Your task to perform on an android device: empty trash in the gmail app Image 0: 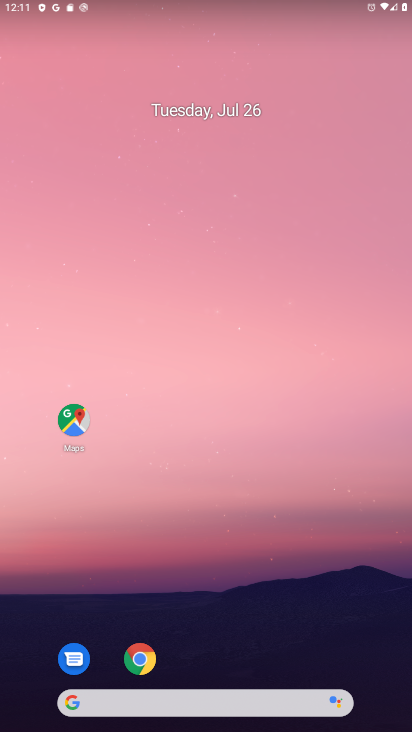
Step 0: drag from (214, 627) to (124, 126)
Your task to perform on an android device: empty trash in the gmail app Image 1: 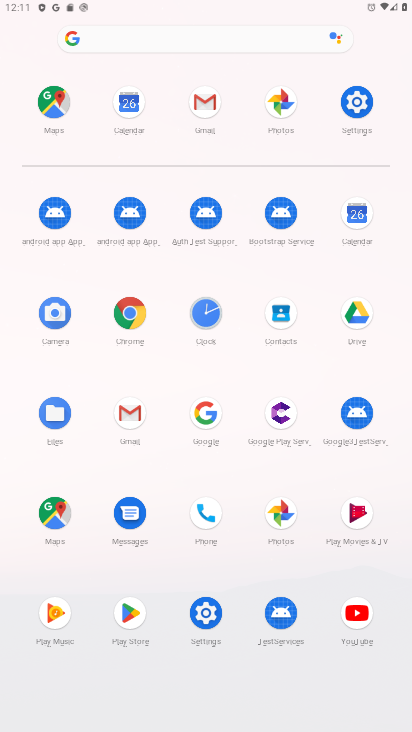
Step 1: click (126, 412)
Your task to perform on an android device: empty trash in the gmail app Image 2: 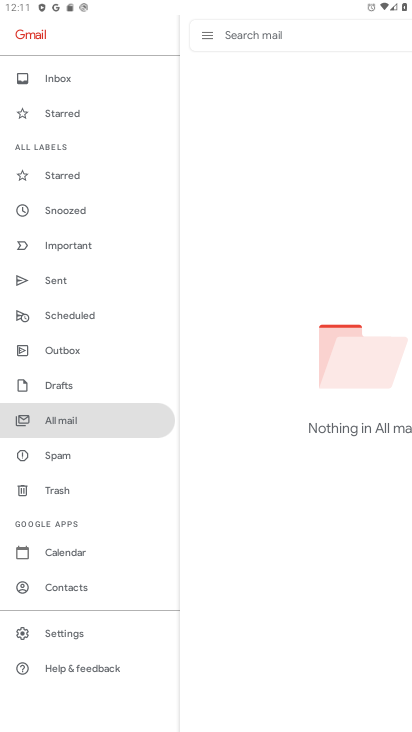
Step 2: click (53, 486)
Your task to perform on an android device: empty trash in the gmail app Image 3: 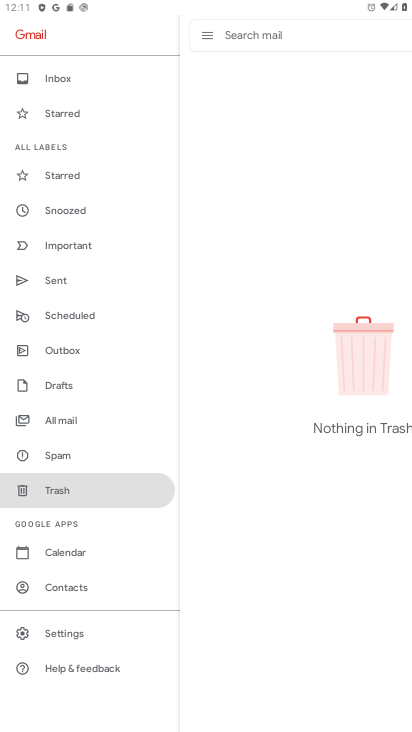
Step 3: task complete